Your task to perform on an android device: Open notification settings Image 0: 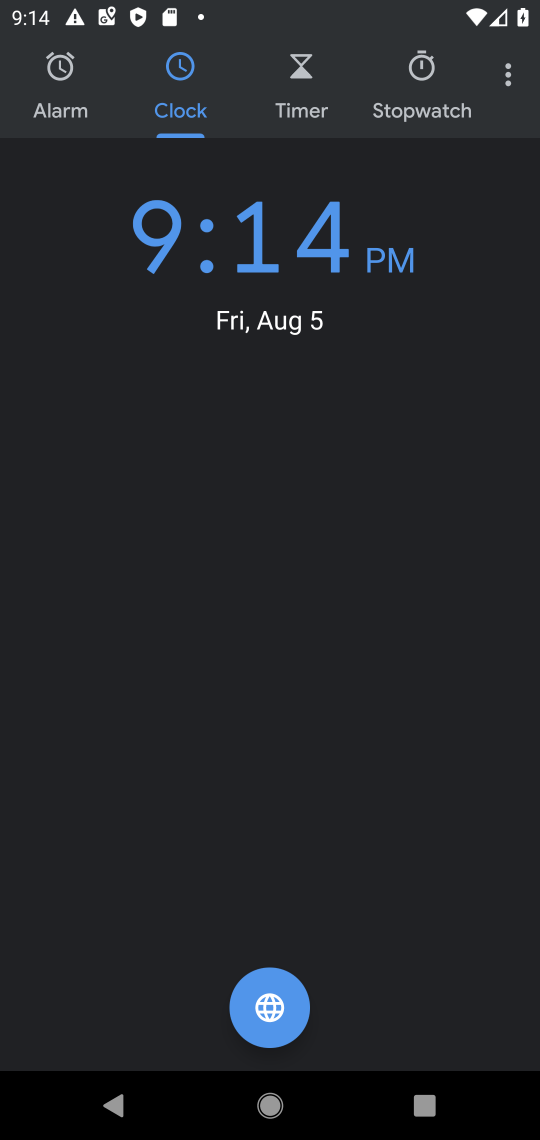
Step 0: press home button
Your task to perform on an android device: Open notification settings Image 1: 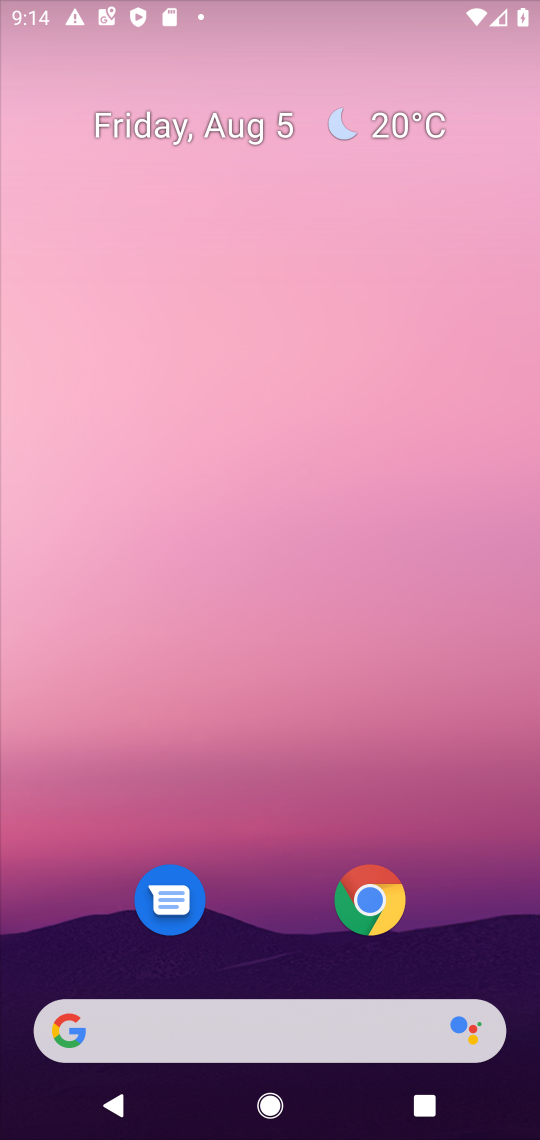
Step 1: drag from (266, 1032) to (241, 221)
Your task to perform on an android device: Open notification settings Image 2: 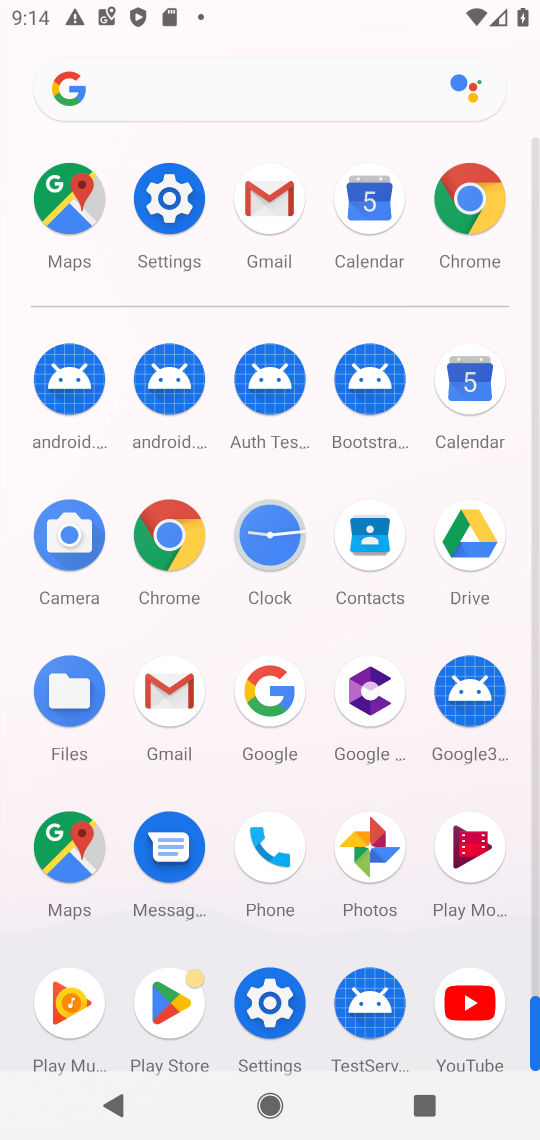
Step 2: click (271, 1015)
Your task to perform on an android device: Open notification settings Image 3: 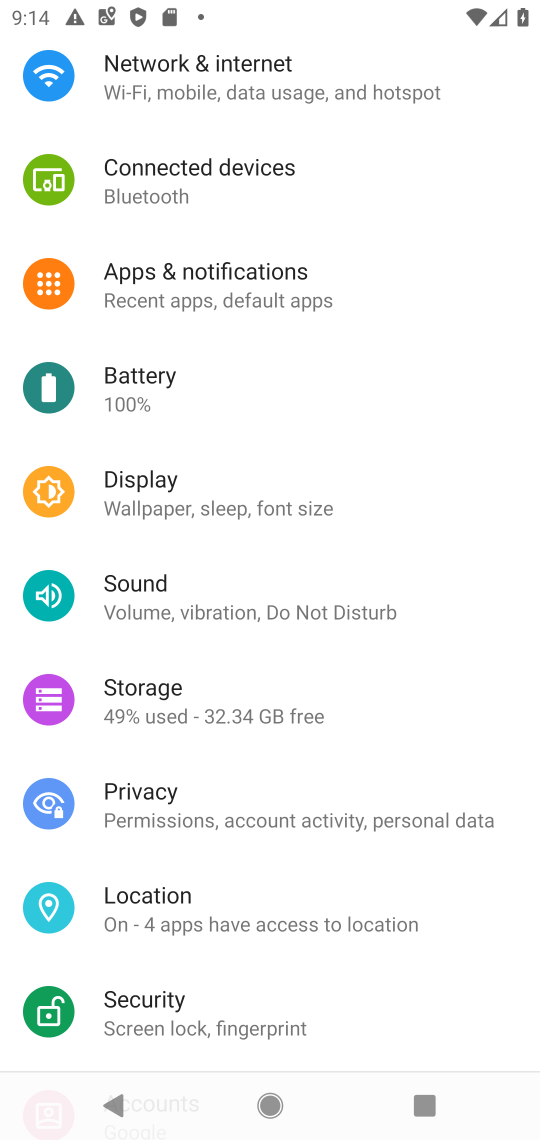
Step 3: click (229, 268)
Your task to perform on an android device: Open notification settings Image 4: 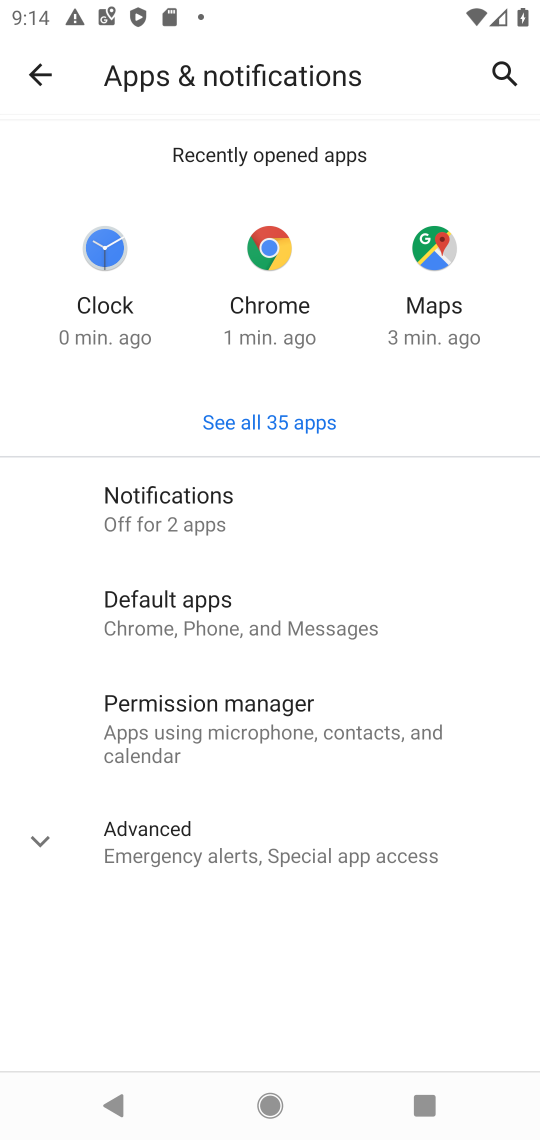
Step 4: click (173, 527)
Your task to perform on an android device: Open notification settings Image 5: 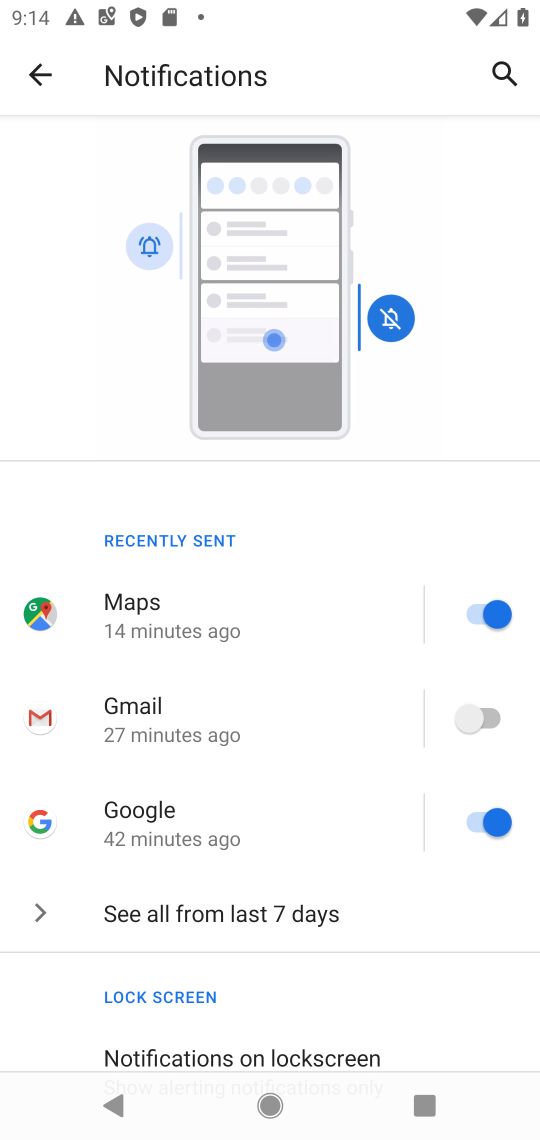
Step 5: task complete